Your task to perform on an android device: delete a single message in the gmail app Image 0: 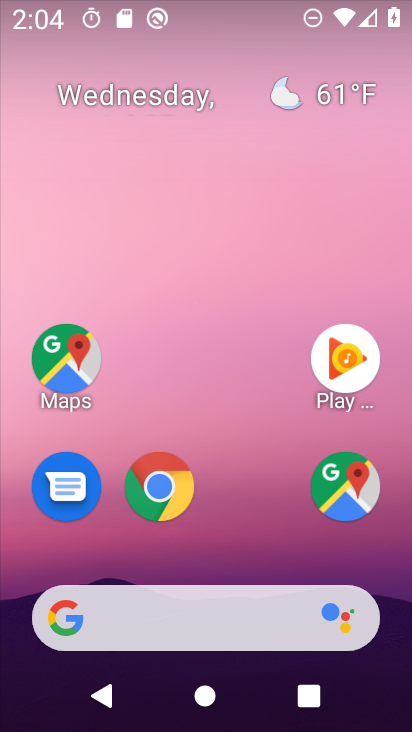
Step 0: press home button
Your task to perform on an android device: delete a single message in the gmail app Image 1: 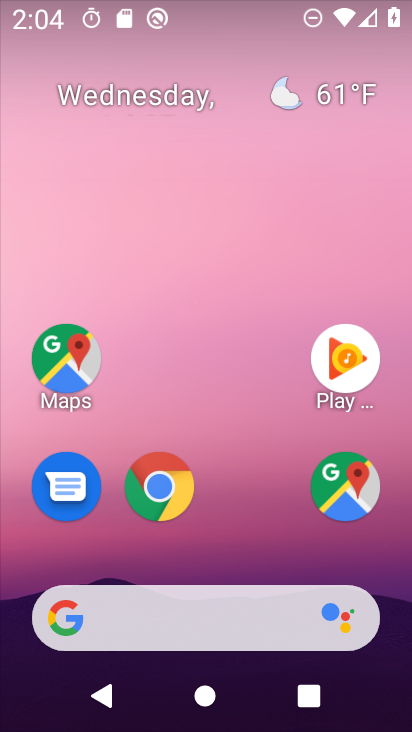
Step 1: drag from (251, 526) to (278, 135)
Your task to perform on an android device: delete a single message in the gmail app Image 2: 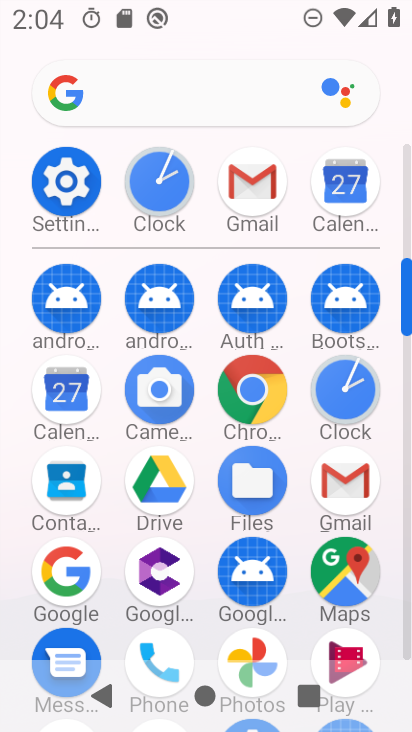
Step 2: click (347, 489)
Your task to perform on an android device: delete a single message in the gmail app Image 3: 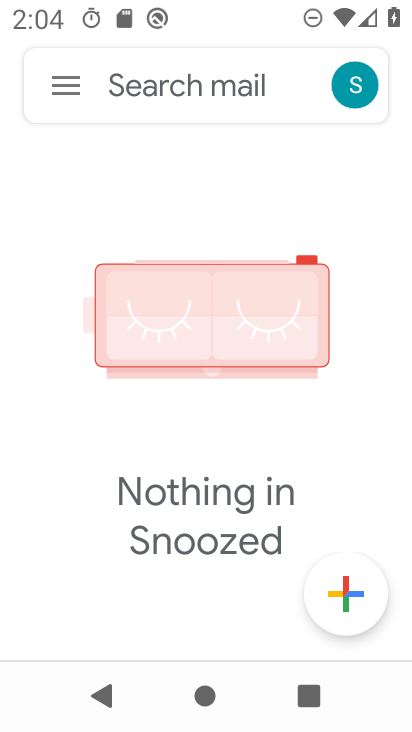
Step 3: click (70, 90)
Your task to perform on an android device: delete a single message in the gmail app Image 4: 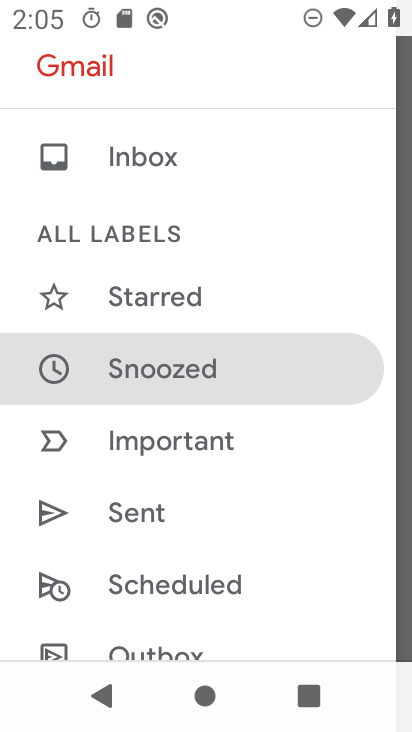
Step 4: click (144, 157)
Your task to perform on an android device: delete a single message in the gmail app Image 5: 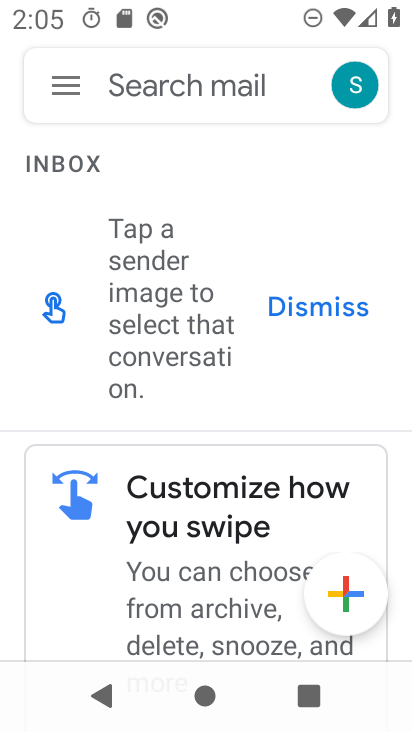
Step 5: click (325, 295)
Your task to perform on an android device: delete a single message in the gmail app Image 6: 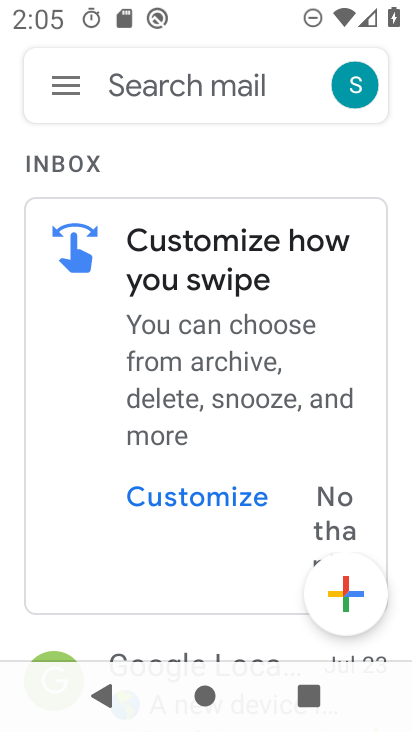
Step 6: drag from (242, 564) to (250, 317)
Your task to perform on an android device: delete a single message in the gmail app Image 7: 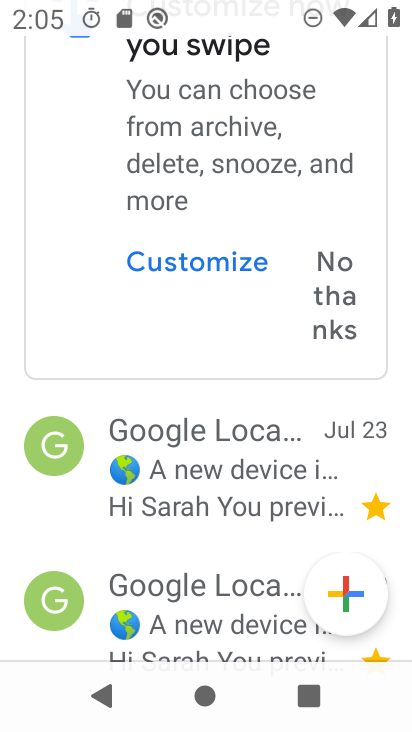
Step 7: click (242, 438)
Your task to perform on an android device: delete a single message in the gmail app Image 8: 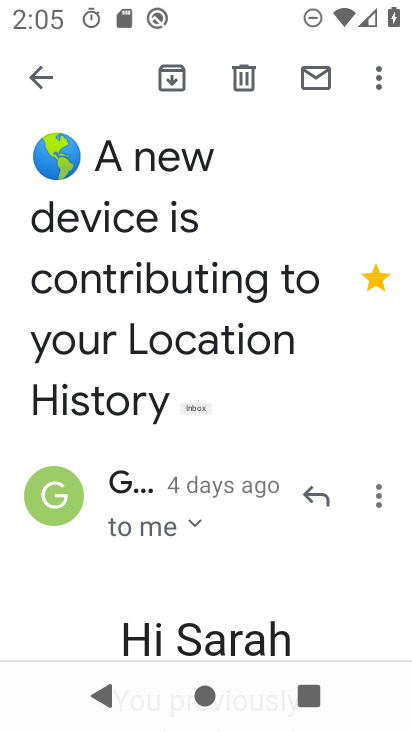
Step 8: click (250, 80)
Your task to perform on an android device: delete a single message in the gmail app Image 9: 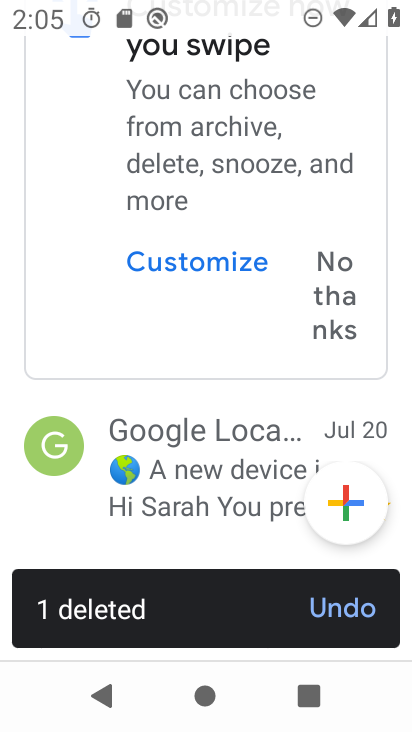
Step 9: task complete